Your task to perform on an android device: Open the calendar and show me this week's events Image 0: 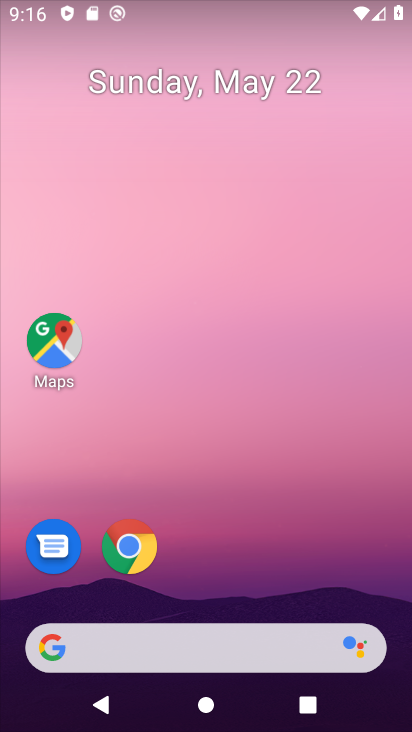
Step 0: drag from (260, 603) to (242, 93)
Your task to perform on an android device: Open the calendar and show me this week's events Image 1: 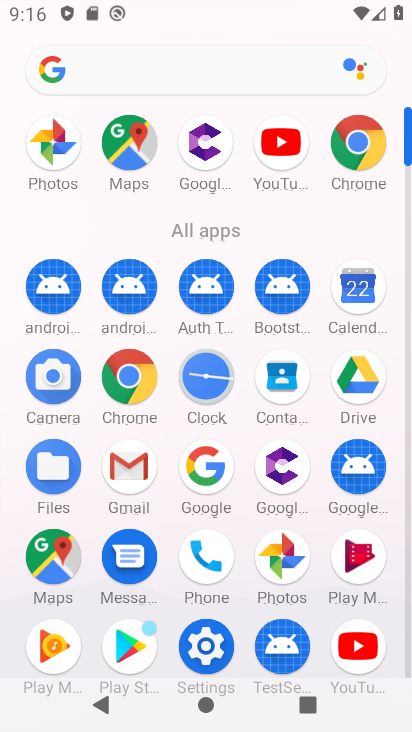
Step 1: click (344, 293)
Your task to perform on an android device: Open the calendar and show me this week's events Image 2: 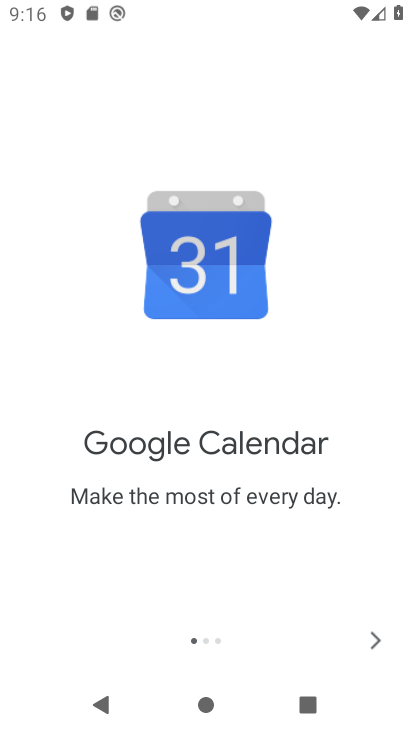
Step 2: click (372, 645)
Your task to perform on an android device: Open the calendar and show me this week's events Image 3: 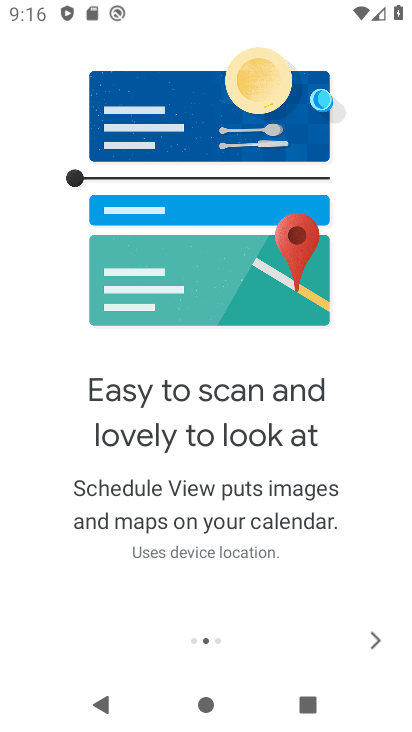
Step 3: click (372, 645)
Your task to perform on an android device: Open the calendar and show me this week's events Image 4: 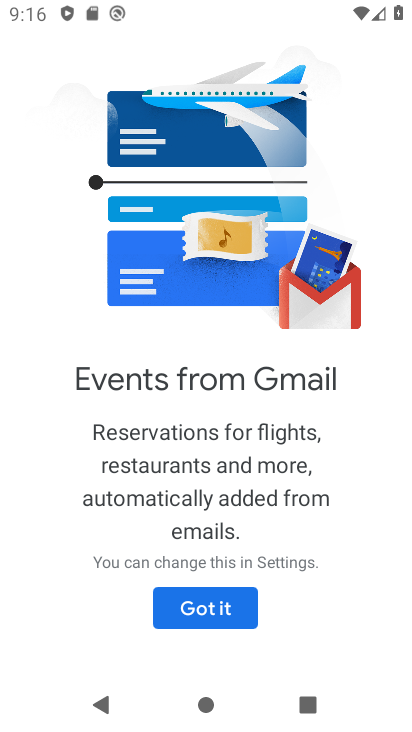
Step 4: click (372, 645)
Your task to perform on an android device: Open the calendar and show me this week's events Image 5: 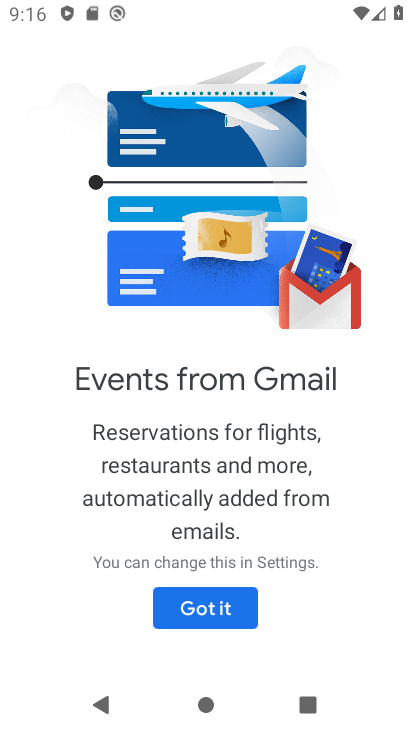
Step 5: click (363, 631)
Your task to perform on an android device: Open the calendar and show me this week's events Image 6: 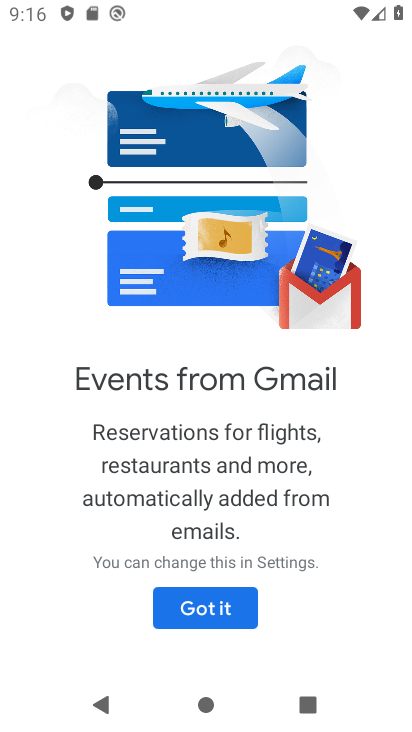
Step 6: click (211, 602)
Your task to perform on an android device: Open the calendar and show me this week's events Image 7: 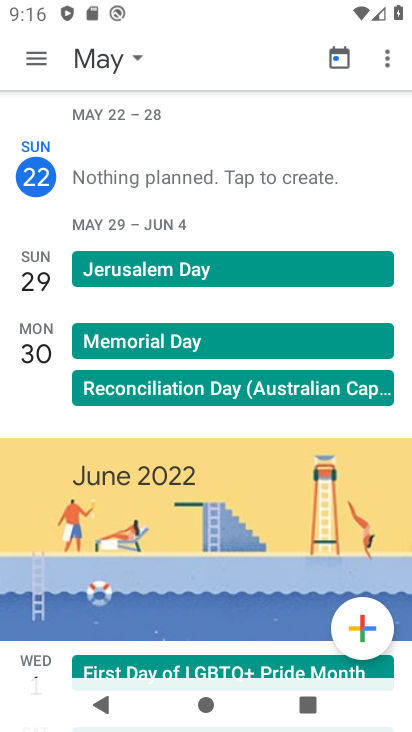
Step 7: click (34, 64)
Your task to perform on an android device: Open the calendar and show me this week's events Image 8: 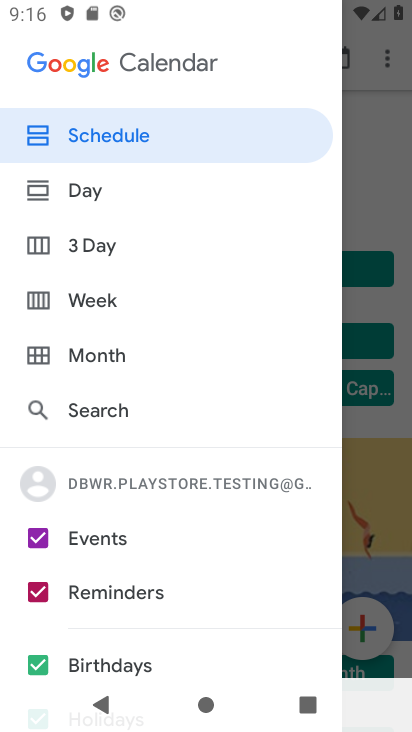
Step 8: click (128, 305)
Your task to perform on an android device: Open the calendar and show me this week's events Image 9: 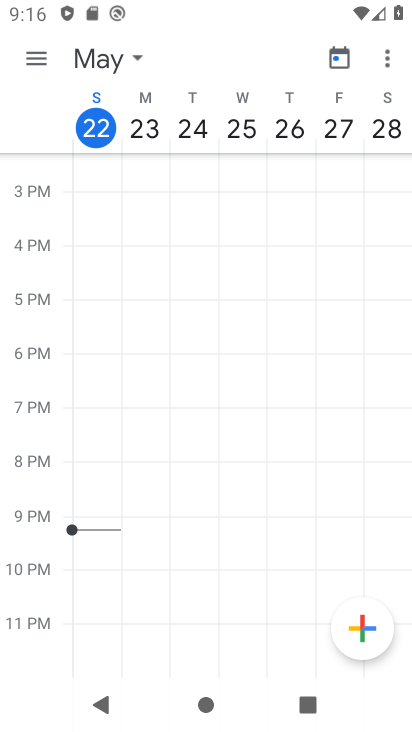
Step 9: click (34, 53)
Your task to perform on an android device: Open the calendar and show me this week's events Image 10: 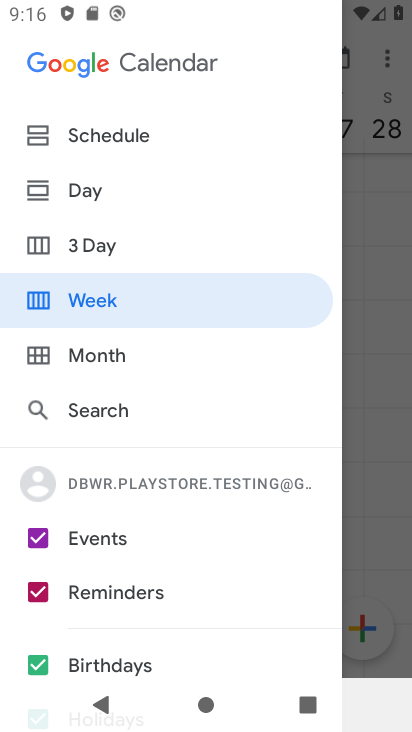
Step 10: drag from (197, 645) to (171, 206)
Your task to perform on an android device: Open the calendar and show me this week's events Image 11: 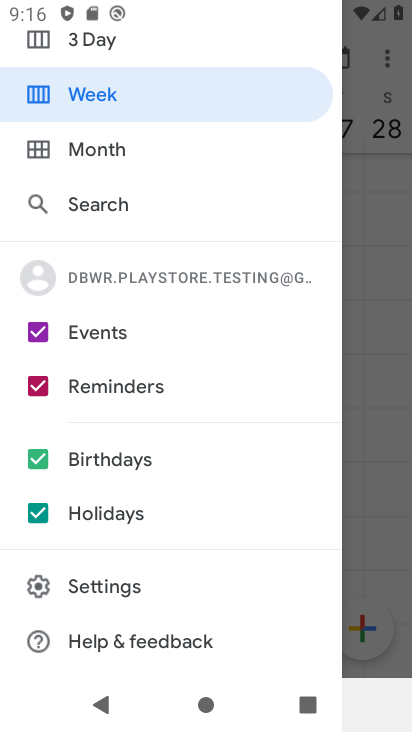
Step 11: click (37, 505)
Your task to perform on an android device: Open the calendar and show me this week's events Image 12: 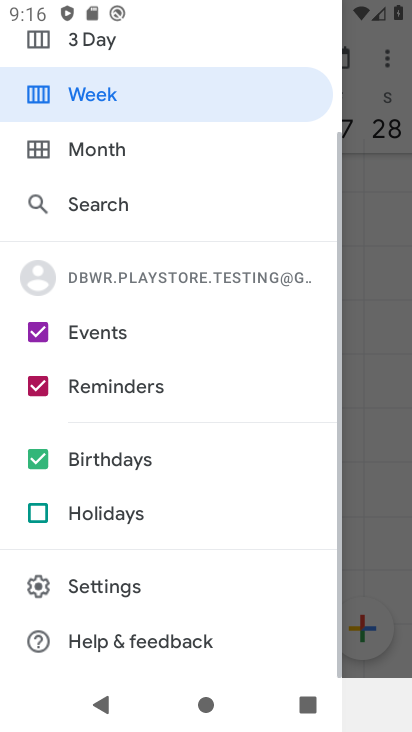
Step 12: click (37, 456)
Your task to perform on an android device: Open the calendar and show me this week's events Image 13: 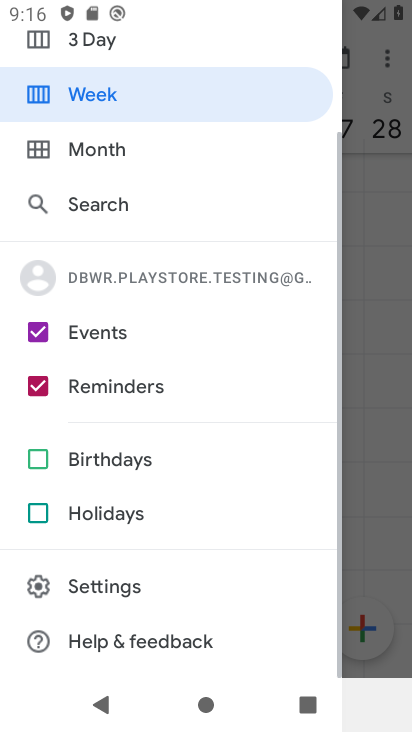
Step 13: click (35, 384)
Your task to perform on an android device: Open the calendar and show me this week's events Image 14: 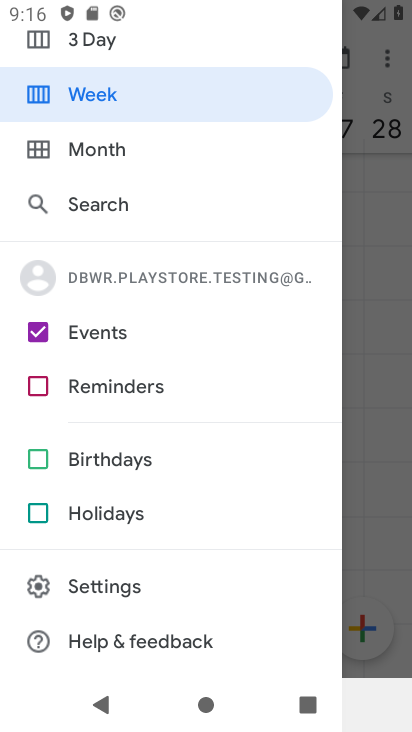
Step 14: click (91, 90)
Your task to perform on an android device: Open the calendar and show me this week's events Image 15: 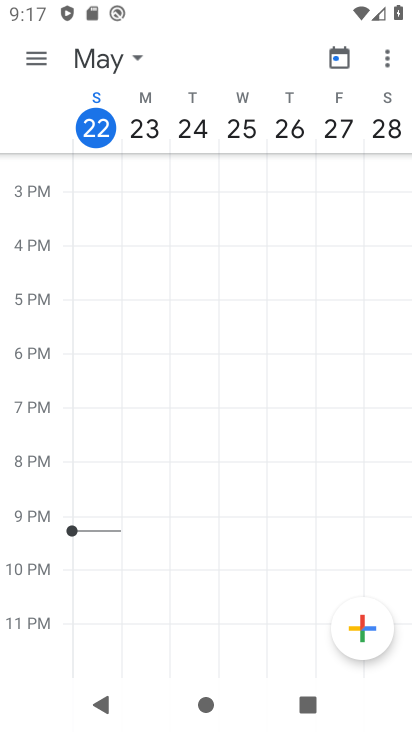
Step 15: task complete